Your task to perform on an android device: Search for Mexican restaurants on Maps Image 0: 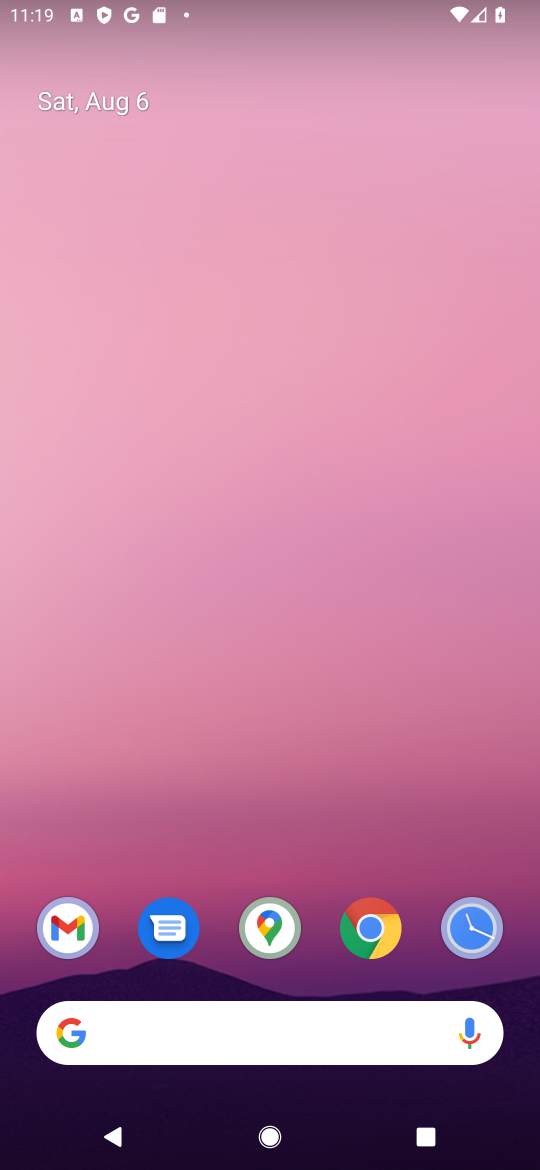
Step 0: click (275, 932)
Your task to perform on an android device: Search for Mexican restaurants on Maps Image 1: 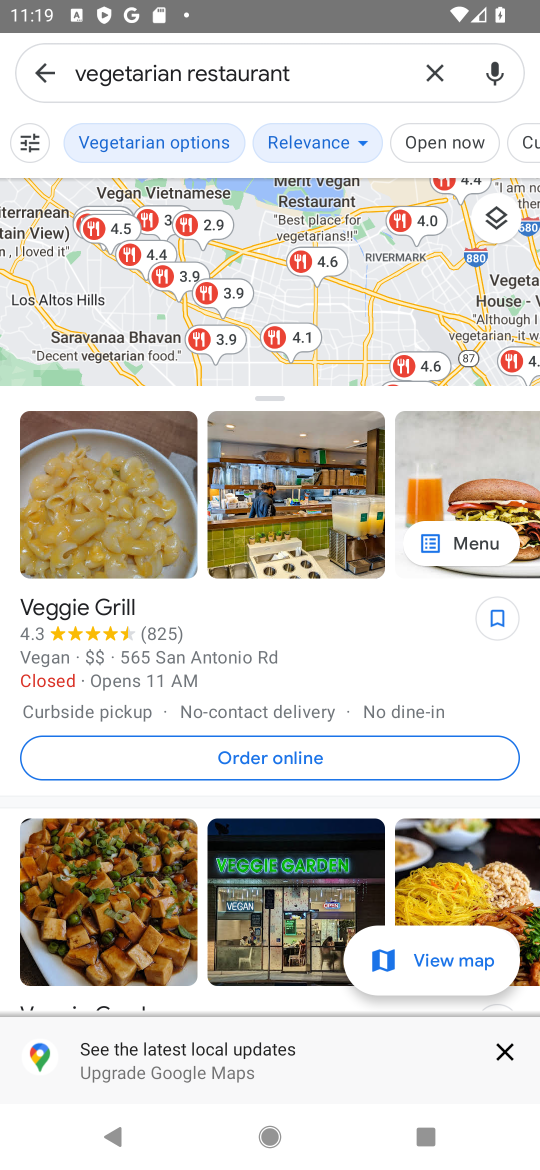
Step 1: click (431, 75)
Your task to perform on an android device: Search for Mexican restaurants on Maps Image 2: 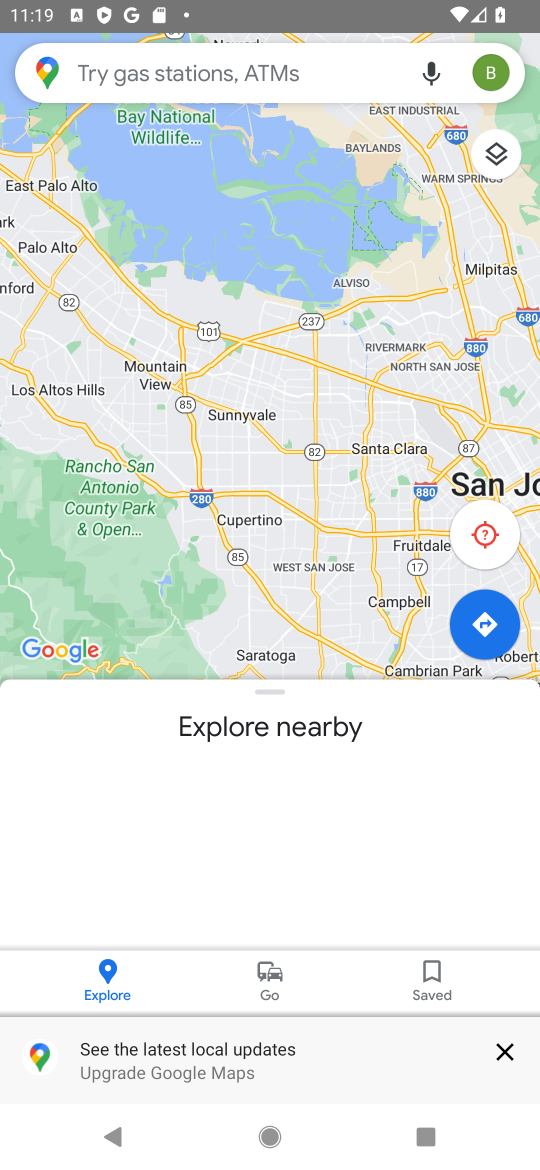
Step 2: click (319, 78)
Your task to perform on an android device: Search for Mexican restaurants on Maps Image 3: 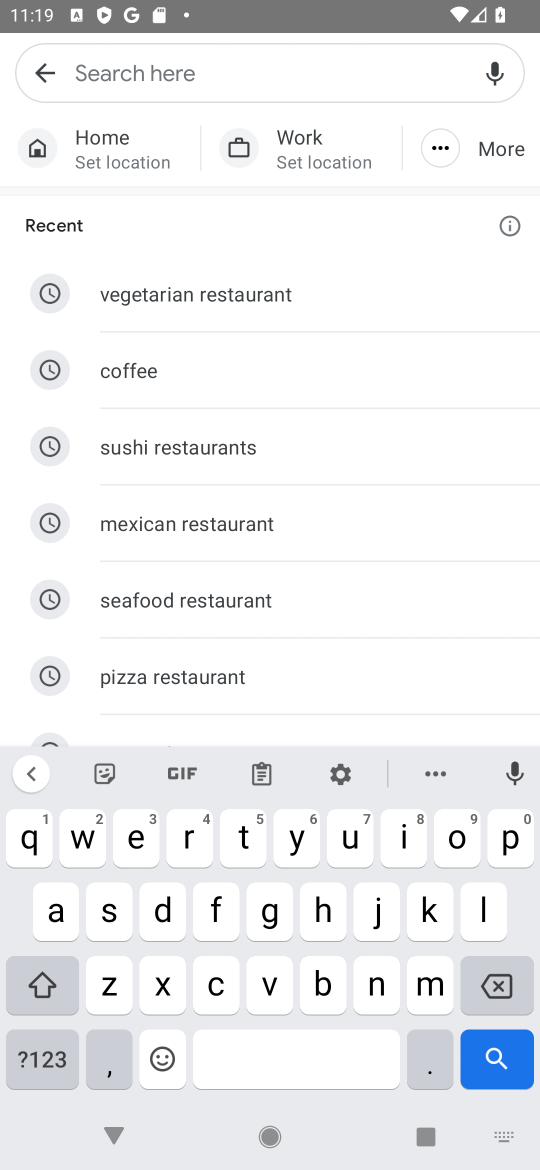
Step 3: click (231, 515)
Your task to perform on an android device: Search for Mexican restaurants on Maps Image 4: 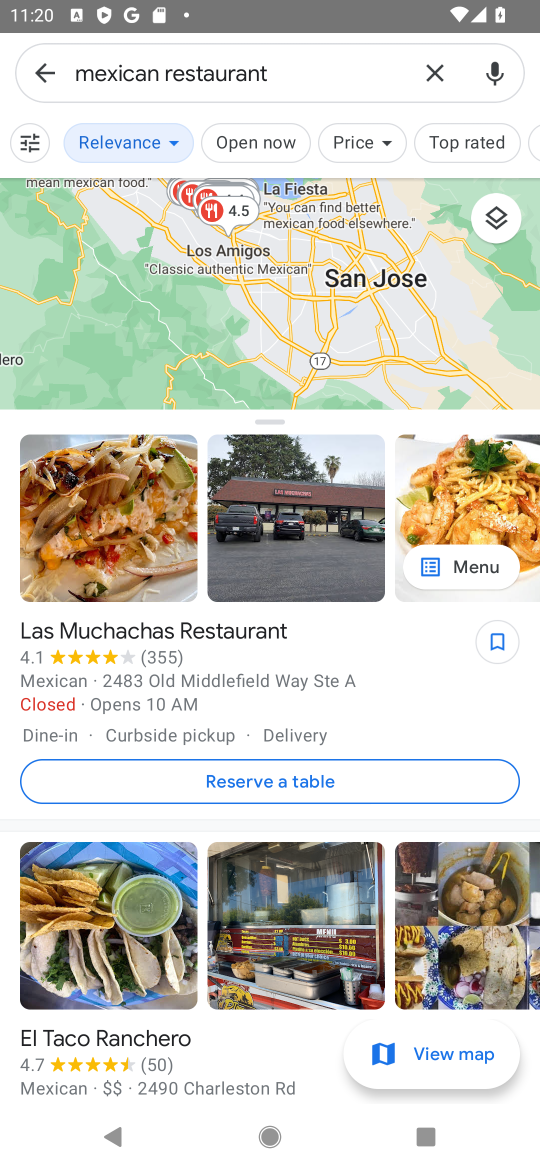
Step 4: task complete